Your task to perform on an android device: search for starred emails in the gmail app Image 0: 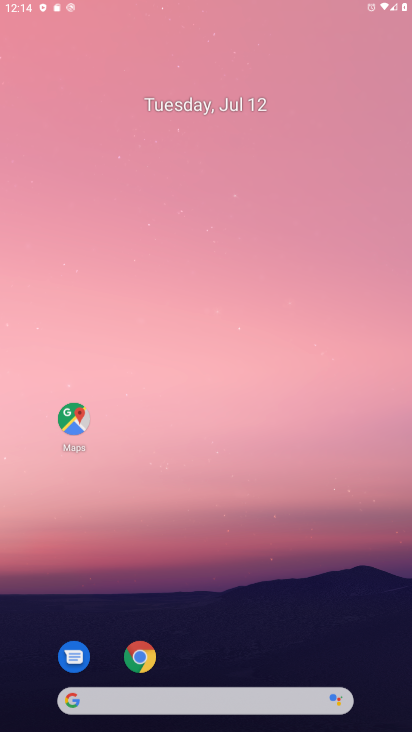
Step 0: click (219, 347)
Your task to perform on an android device: search for starred emails in the gmail app Image 1: 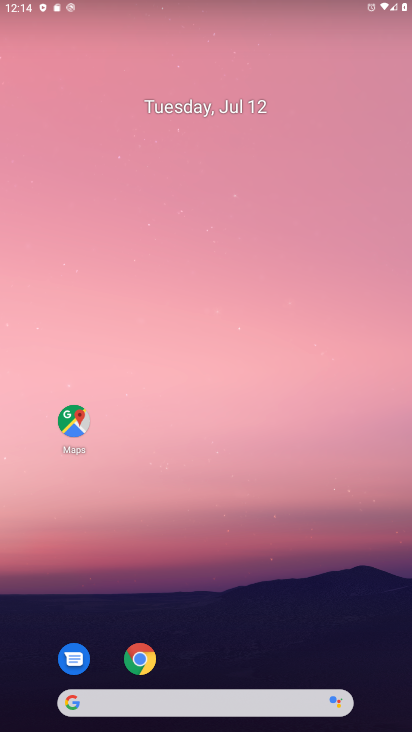
Step 1: drag from (213, 665) to (276, 319)
Your task to perform on an android device: search for starred emails in the gmail app Image 2: 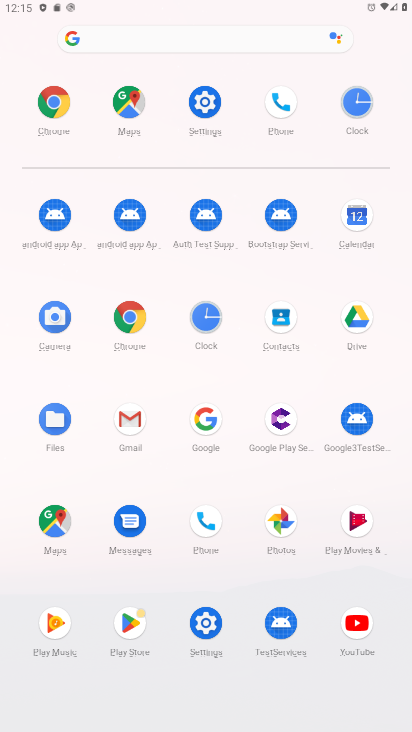
Step 2: click (128, 420)
Your task to perform on an android device: search for starred emails in the gmail app Image 3: 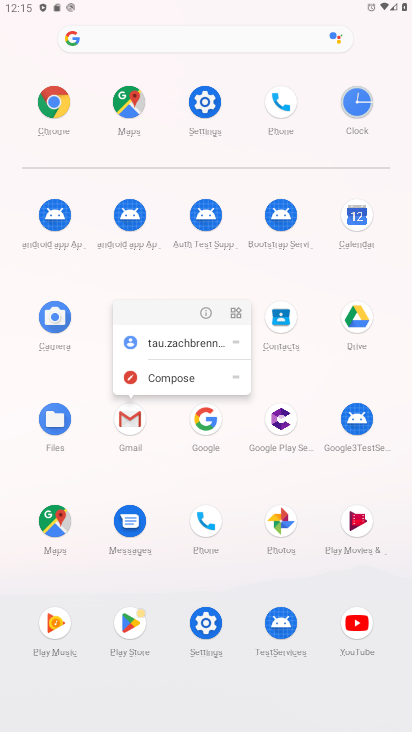
Step 3: click (206, 311)
Your task to perform on an android device: search for starred emails in the gmail app Image 4: 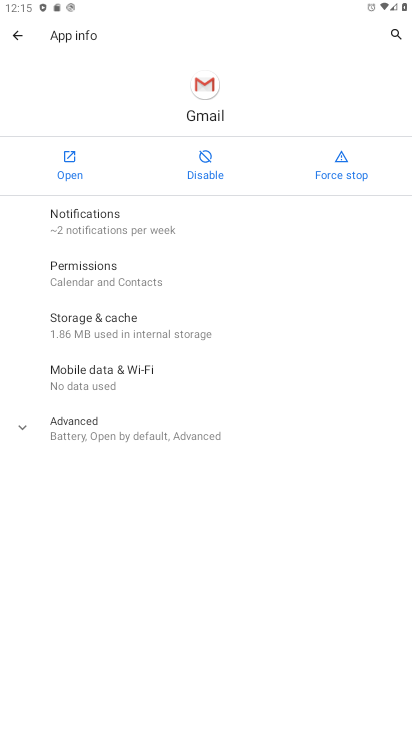
Step 4: click (77, 162)
Your task to perform on an android device: search for starred emails in the gmail app Image 5: 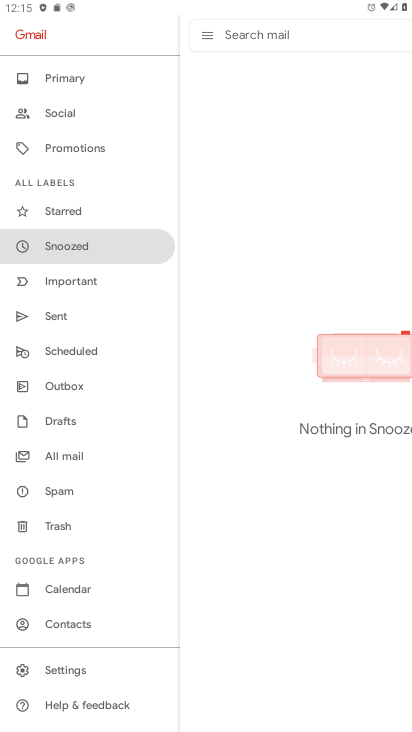
Step 5: drag from (105, 626) to (104, 310)
Your task to perform on an android device: search for starred emails in the gmail app Image 6: 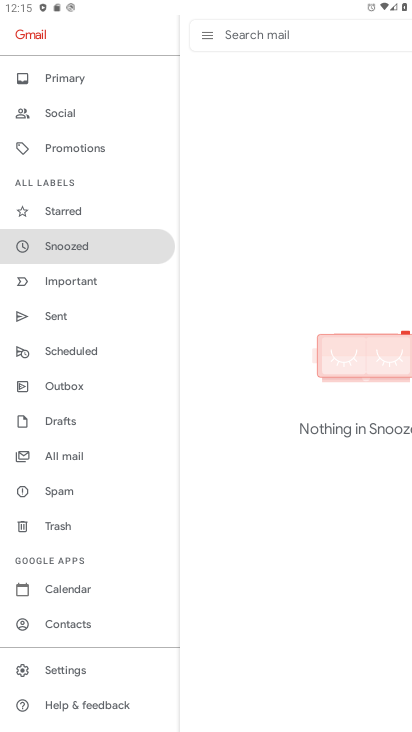
Step 6: click (61, 215)
Your task to perform on an android device: search for starred emails in the gmail app Image 7: 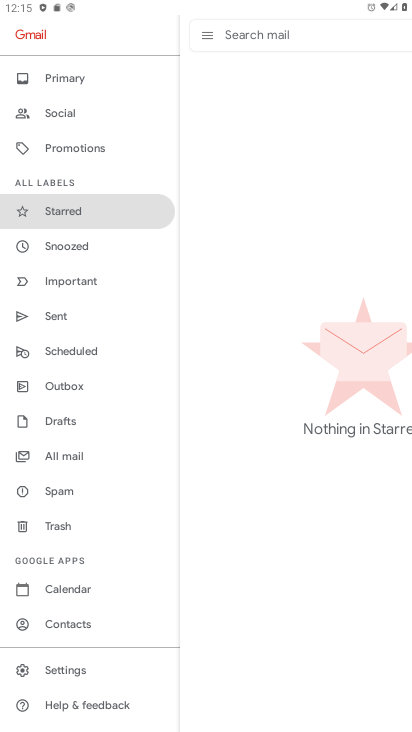
Step 7: click (235, 368)
Your task to perform on an android device: search for starred emails in the gmail app Image 8: 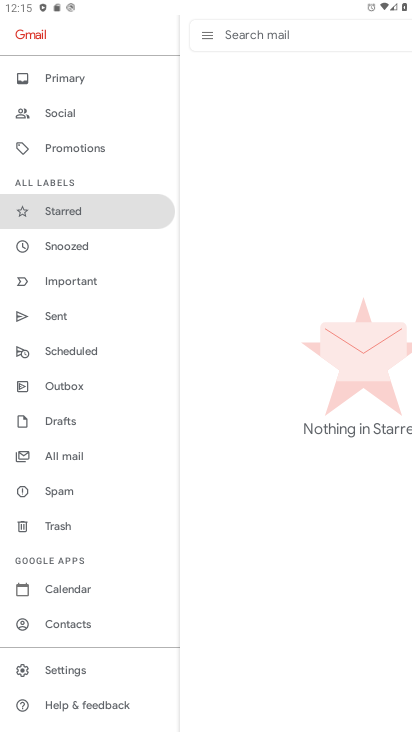
Step 8: click (204, 37)
Your task to perform on an android device: search for starred emails in the gmail app Image 9: 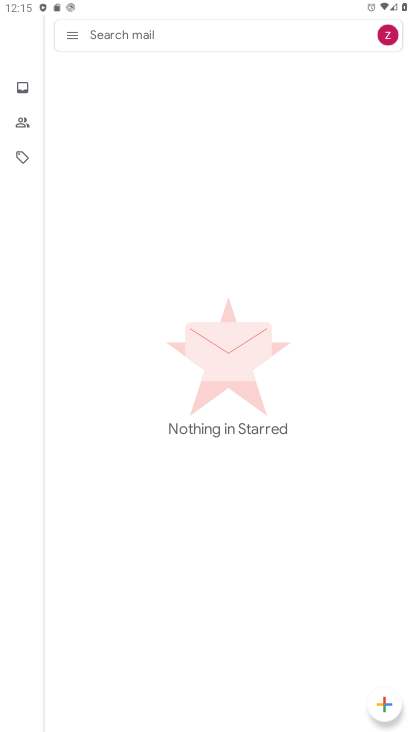
Step 9: task complete